Your task to perform on an android device: change your default location settings in chrome Image 0: 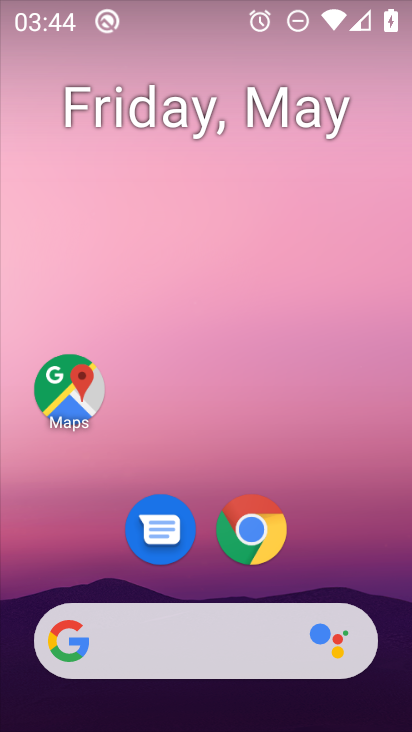
Step 0: click (243, 529)
Your task to perform on an android device: change your default location settings in chrome Image 1: 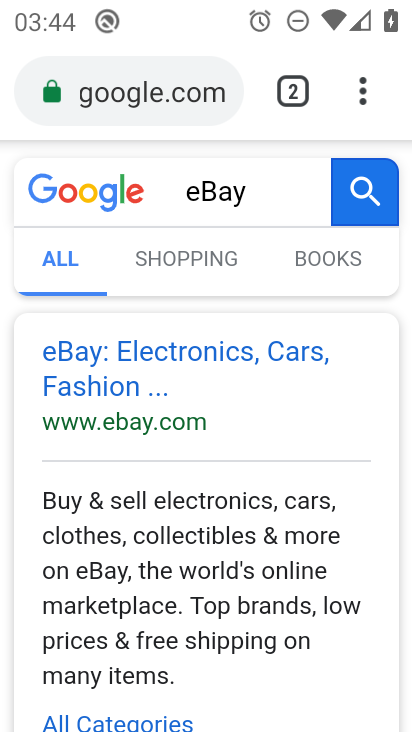
Step 1: click (352, 89)
Your task to perform on an android device: change your default location settings in chrome Image 2: 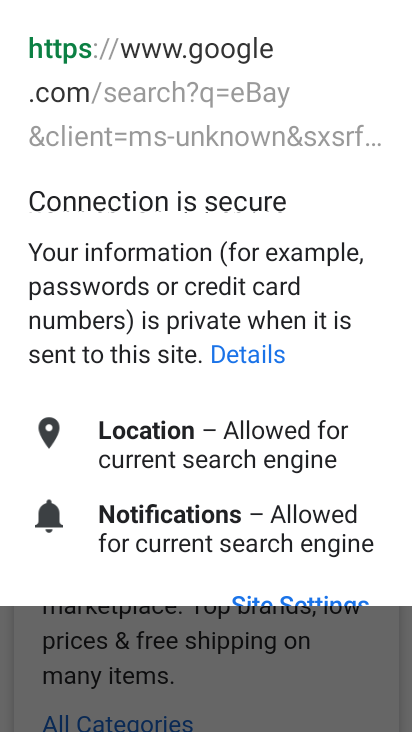
Step 2: press home button
Your task to perform on an android device: change your default location settings in chrome Image 3: 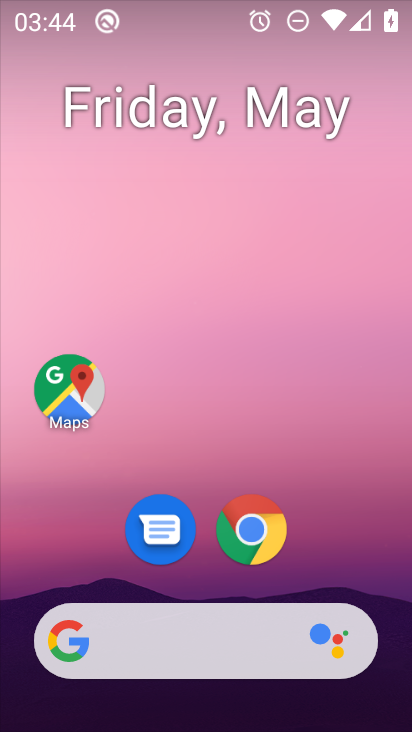
Step 3: click (260, 530)
Your task to perform on an android device: change your default location settings in chrome Image 4: 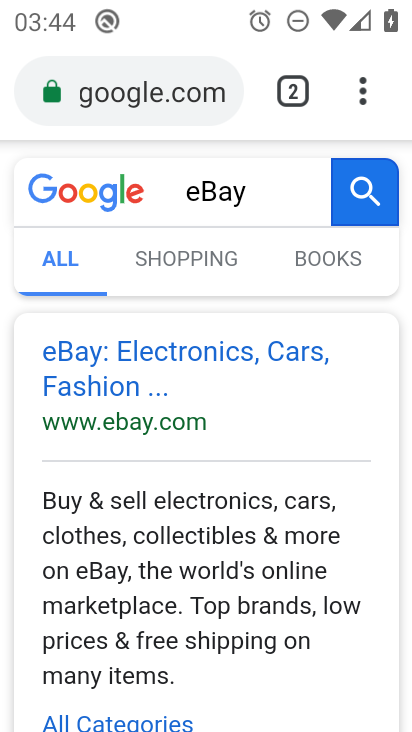
Step 4: click (348, 84)
Your task to perform on an android device: change your default location settings in chrome Image 5: 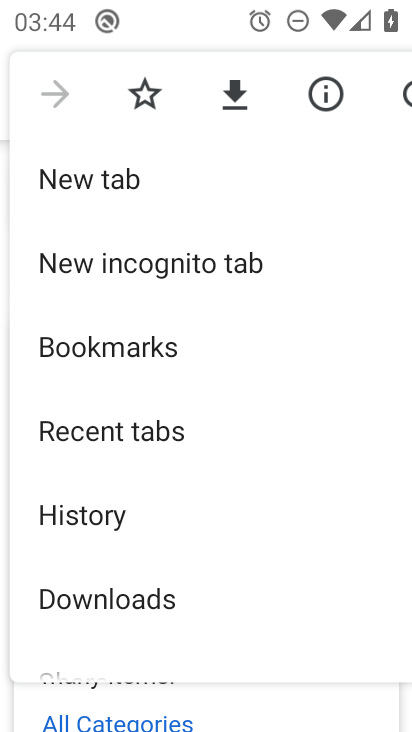
Step 5: drag from (271, 627) to (276, 332)
Your task to perform on an android device: change your default location settings in chrome Image 6: 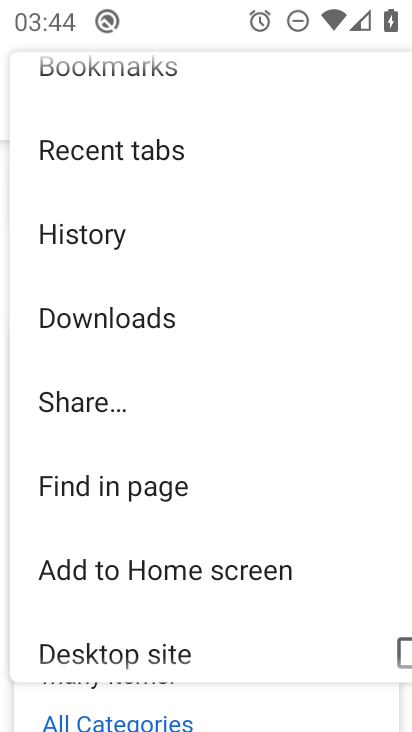
Step 6: drag from (288, 581) to (284, 307)
Your task to perform on an android device: change your default location settings in chrome Image 7: 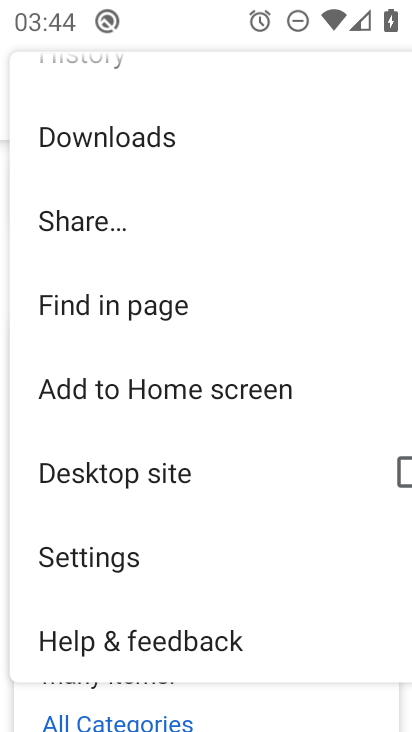
Step 7: drag from (307, 607) to (328, 275)
Your task to perform on an android device: change your default location settings in chrome Image 8: 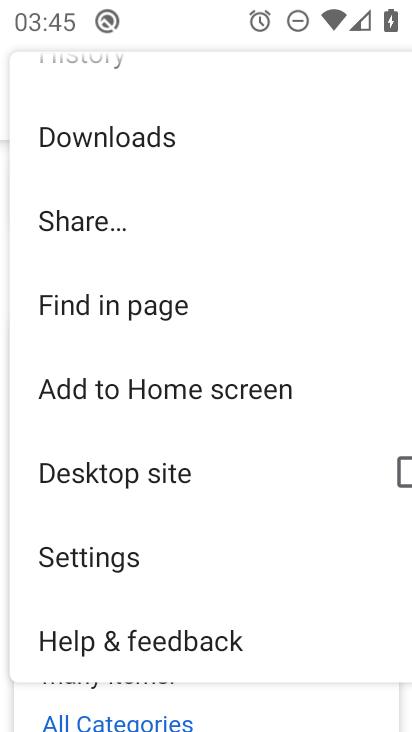
Step 8: click (86, 556)
Your task to perform on an android device: change your default location settings in chrome Image 9: 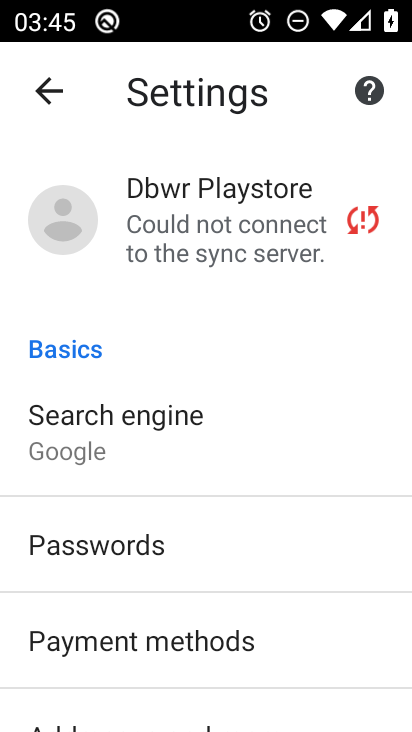
Step 9: drag from (305, 674) to (290, 288)
Your task to perform on an android device: change your default location settings in chrome Image 10: 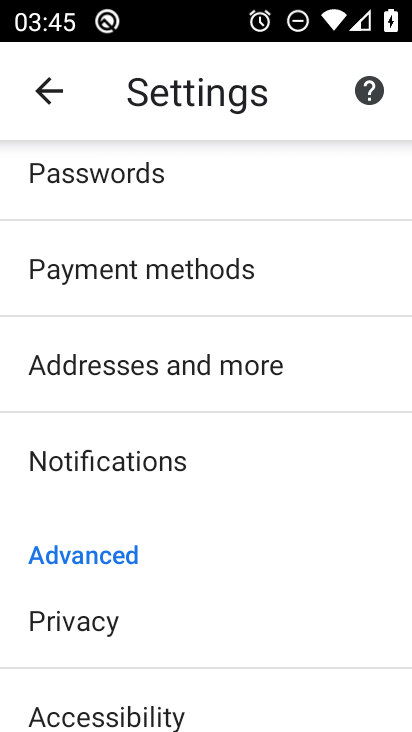
Step 10: drag from (278, 681) to (270, 347)
Your task to perform on an android device: change your default location settings in chrome Image 11: 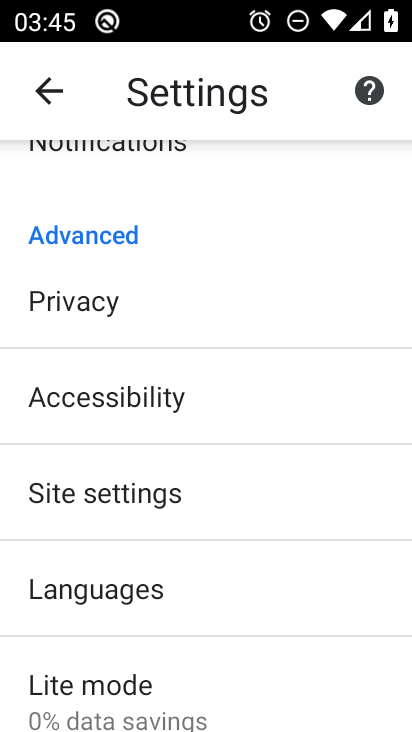
Step 11: click (147, 485)
Your task to perform on an android device: change your default location settings in chrome Image 12: 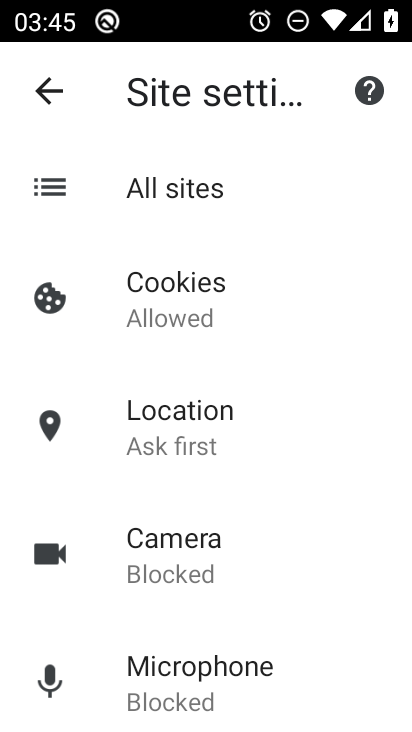
Step 12: click (172, 433)
Your task to perform on an android device: change your default location settings in chrome Image 13: 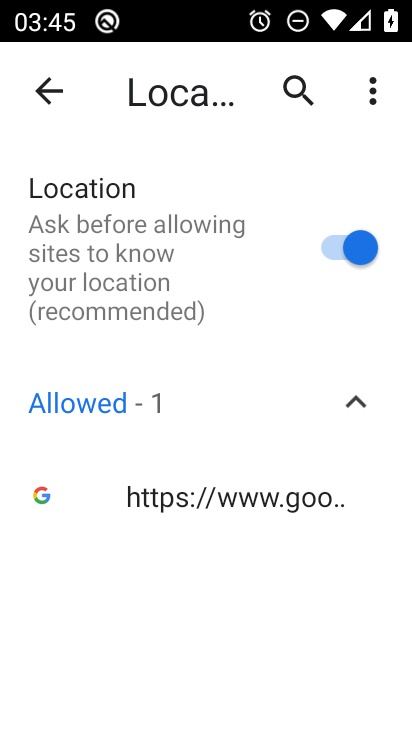
Step 13: task complete